Your task to perform on an android device: turn pop-ups off in chrome Image 0: 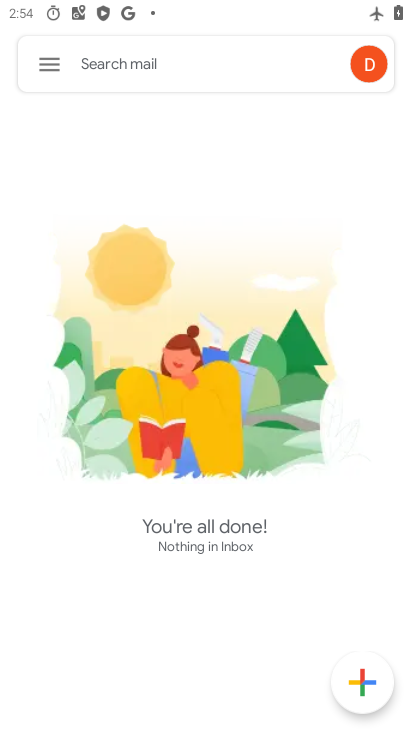
Step 0: drag from (172, 603) to (343, 57)
Your task to perform on an android device: turn pop-ups off in chrome Image 1: 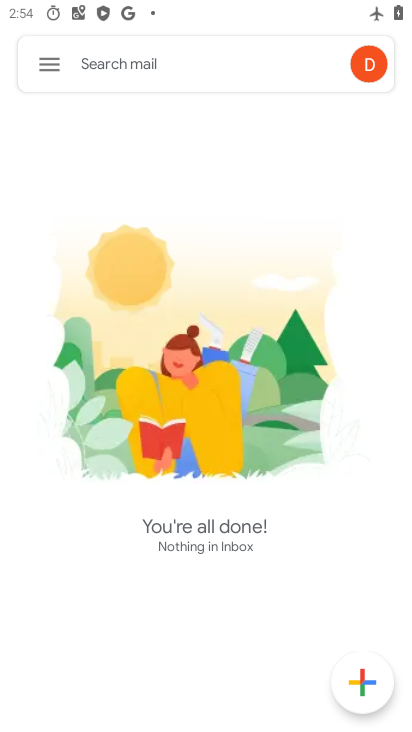
Step 1: click (244, 495)
Your task to perform on an android device: turn pop-ups off in chrome Image 2: 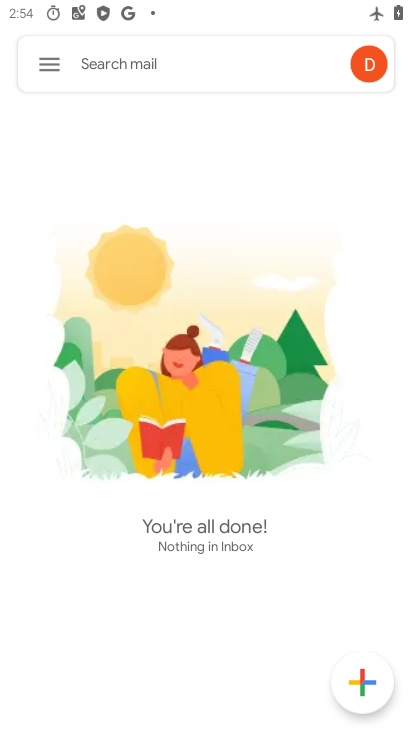
Step 2: press home button
Your task to perform on an android device: turn pop-ups off in chrome Image 3: 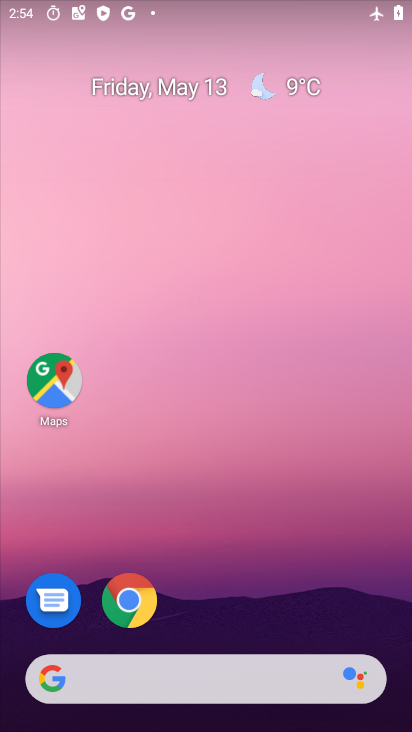
Step 3: drag from (201, 629) to (296, 0)
Your task to perform on an android device: turn pop-ups off in chrome Image 4: 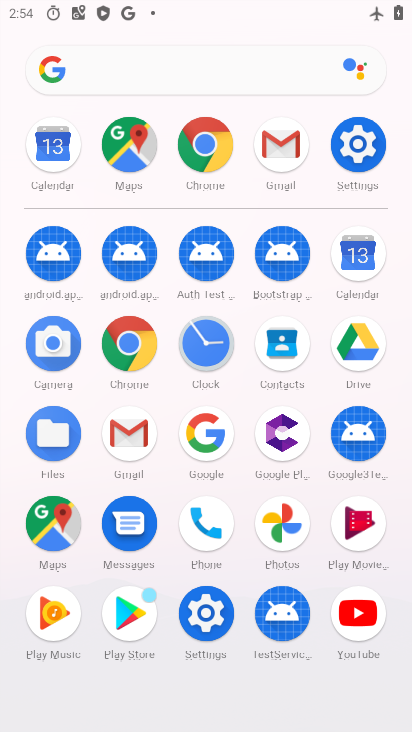
Step 4: click (199, 139)
Your task to perform on an android device: turn pop-ups off in chrome Image 5: 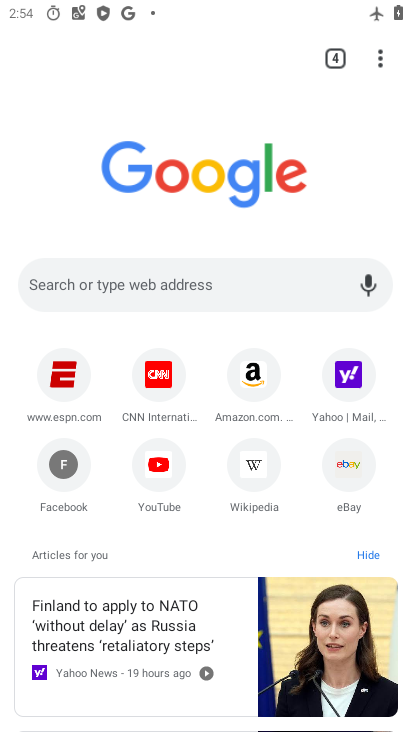
Step 5: drag from (381, 51) to (227, 485)
Your task to perform on an android device: turn pop-ups off in chrome Image 6: 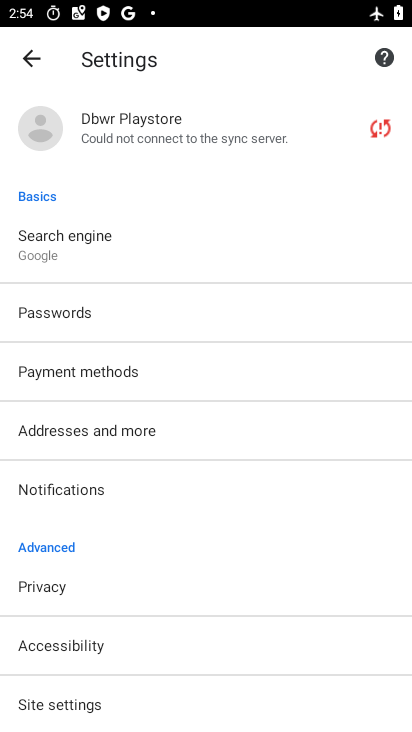
Step 6: drag from (180, 500) to (262, 206)
Your task to perform on an android device: turn pop-ups off in chrome Image 7: 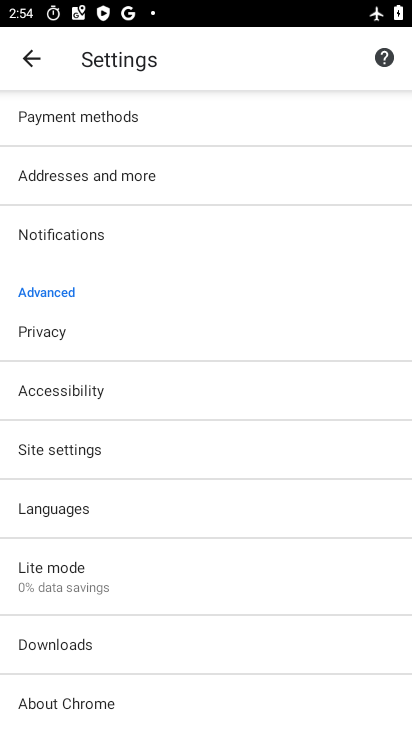
Step 7: click (91, 446)
Your task to perform on an android device: turn pop-ups off in chrome Image 8: 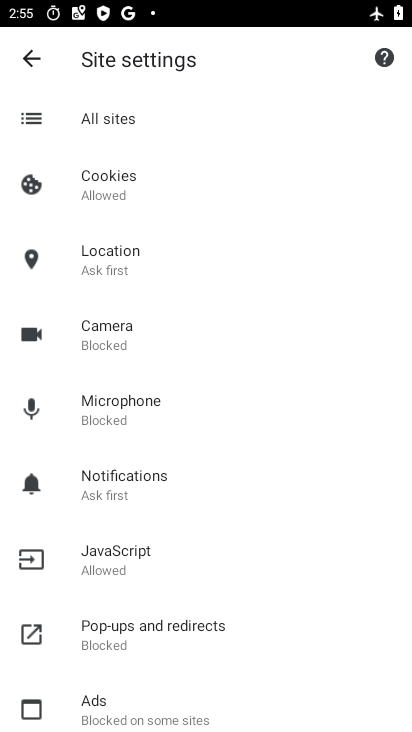
Step 8: click (137, 627)
Your task to perform on an android device: turn pop-ups off in chrome Image 9: 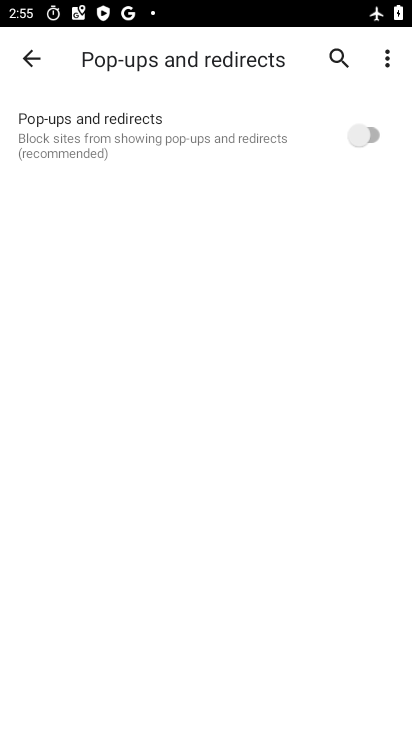
Step 9: drag from (150, 571) to (314, 230)
Your task to perform on an android device: turn pop-ups off in chrome Image 10: 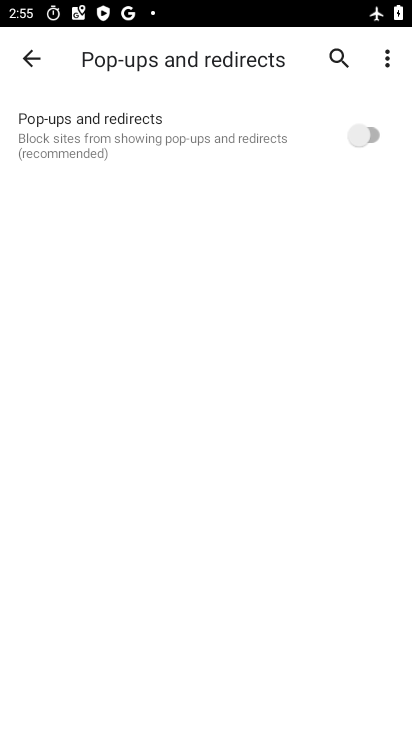
Step 10: click (85, 509)
Your task to perform on an android device: turn pop-ups off in chrome Image 11: 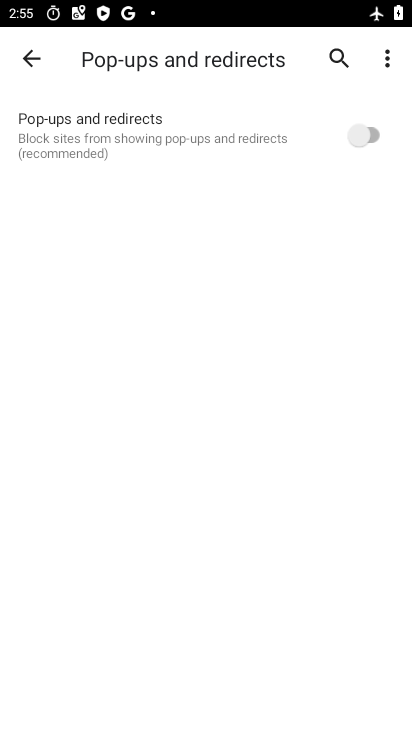
Step 11: task complete